Your task to perform on an android device: open wifi settings Image 0: 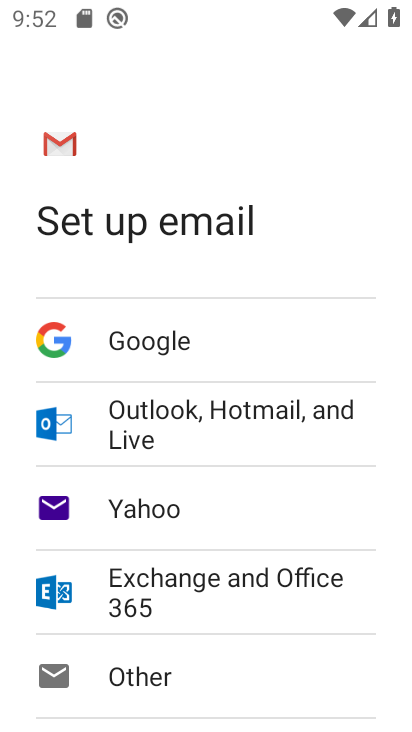
Step 0: press home button
Your task to perform on an android device: open wifi settings Image 1: 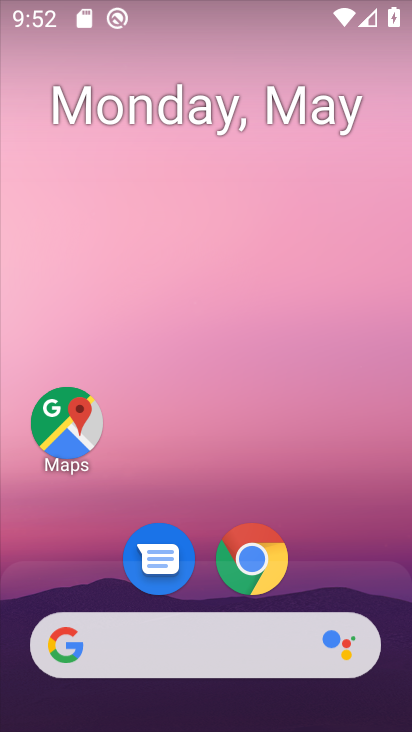
Step 1: drag from (204, 728) to (204, 64)
Your task to perform on an android device: open wifi settings Image 2: 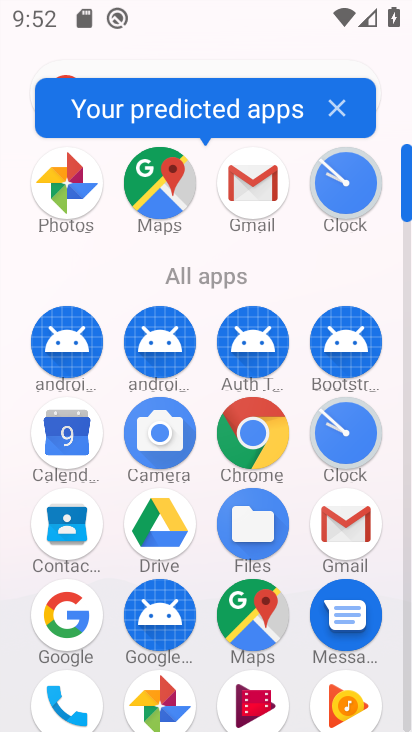
Step 2: drag from (15, 607) to (43, 142)
Your task to perform on an android device: open wifi settings Image 3: 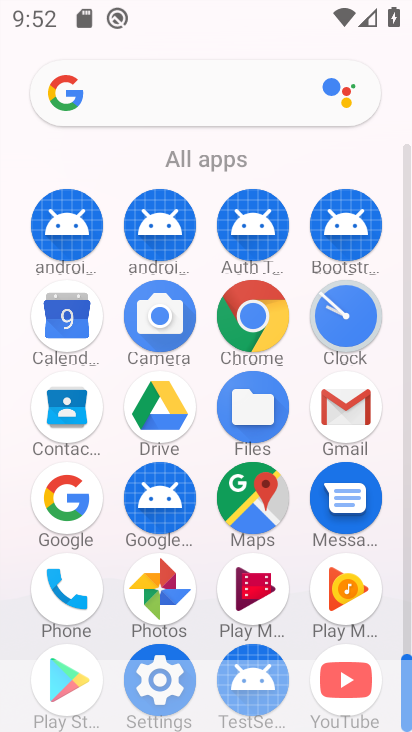
Step 3: drag from (120, 565) to (124, 260)
Your task to perform on an android device: open wifi settings Image 4: 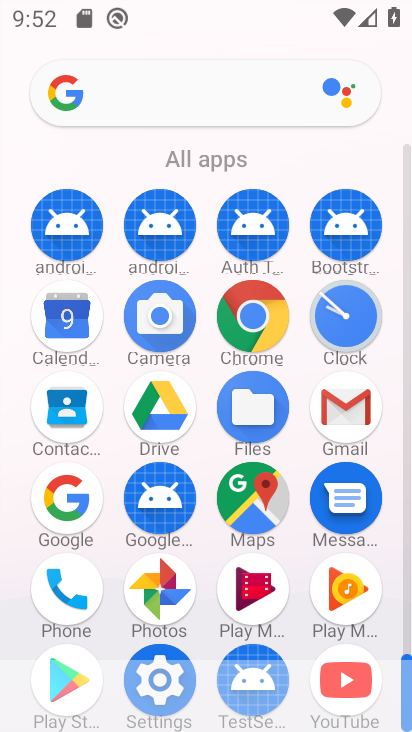
Step 4: drag from (199, 633) to (201, 209)
Your task to perform on an android device: open wifi settings Image 5: 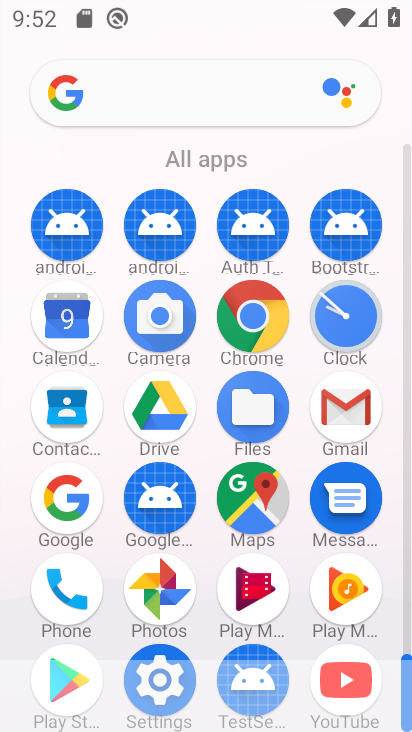
Step 5: click (166, 653)
Your task to perform on an android device: open wifi settings Image 6: 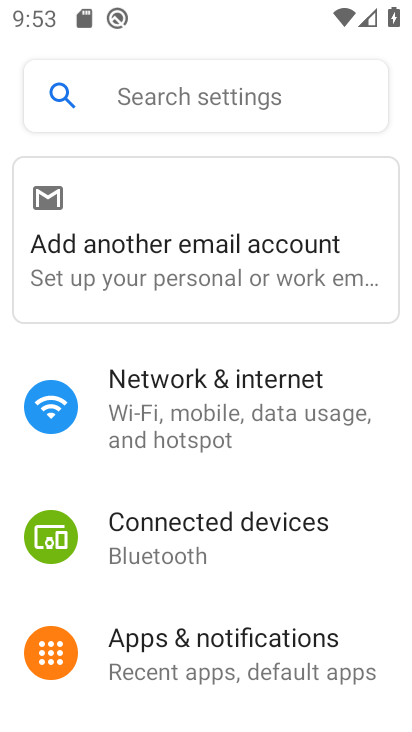
Step 6: click (191, 414)
Your task to perform on an android device: open wifi settings Image 7: 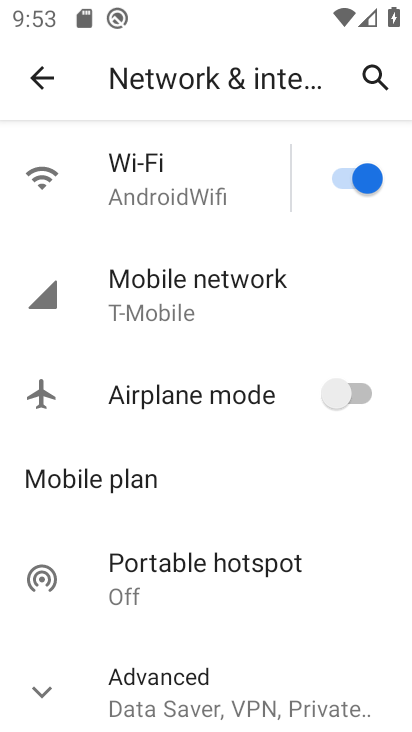
Step 7: click (143, 178)
Your task to perform on an android device: open wifi settings Image 8: 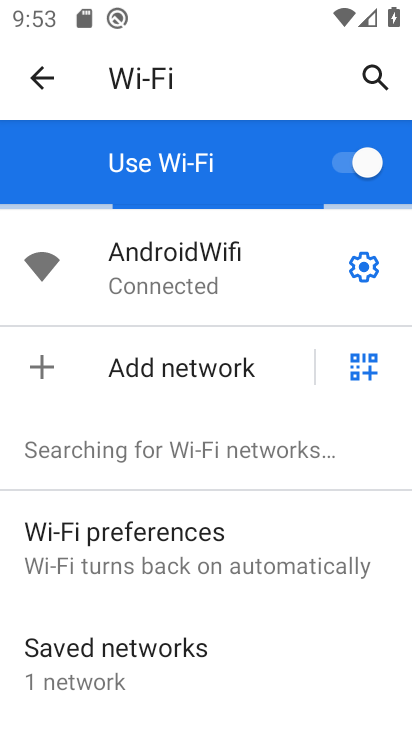
Step 8: task complete